Your task to perform on an android device: turn off improve location accuracy Image 0: 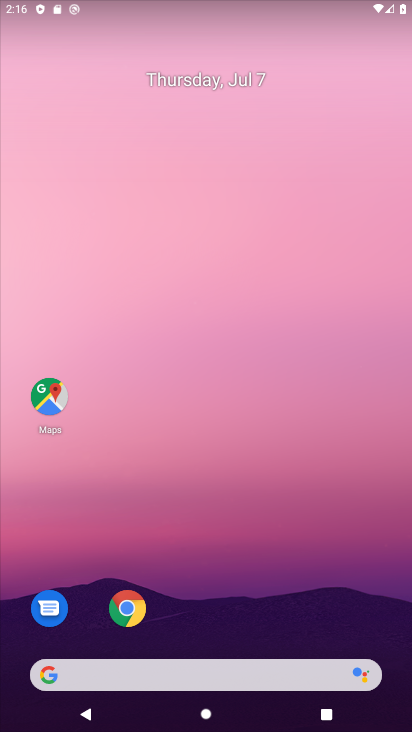
Step 0: drag from (389, 657) to (350, 147)
Your task to perform on an android device: turn off improve location accuracy Image 1: 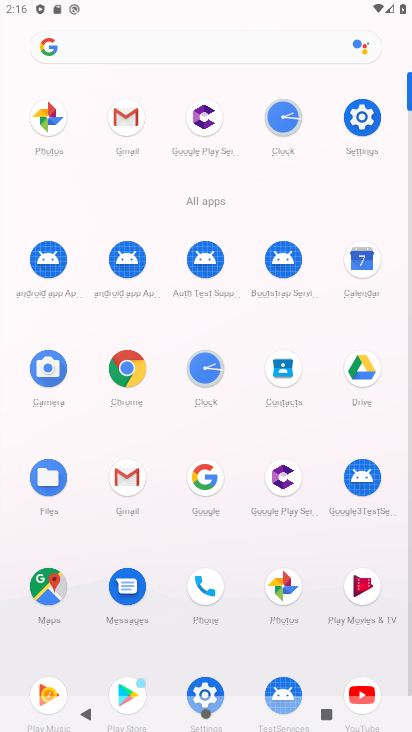
Step 1: click (410, 612)
Your task to perform on an android device: turn off improve location accuracy Image 2: 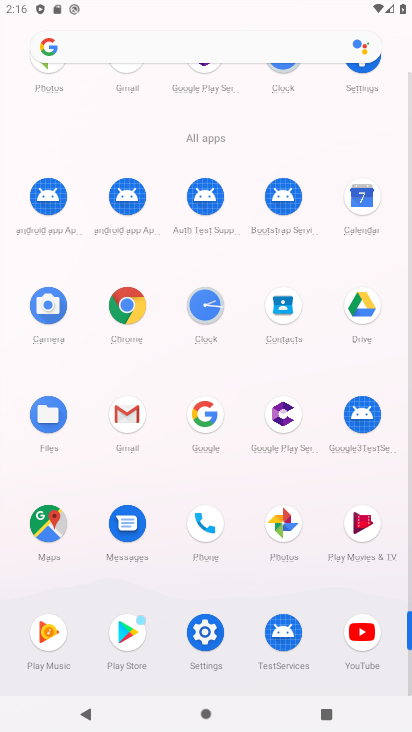
Step 2: click (204, 633)
Your task to perform on an android device: turn off improve location accuracy Image 3: 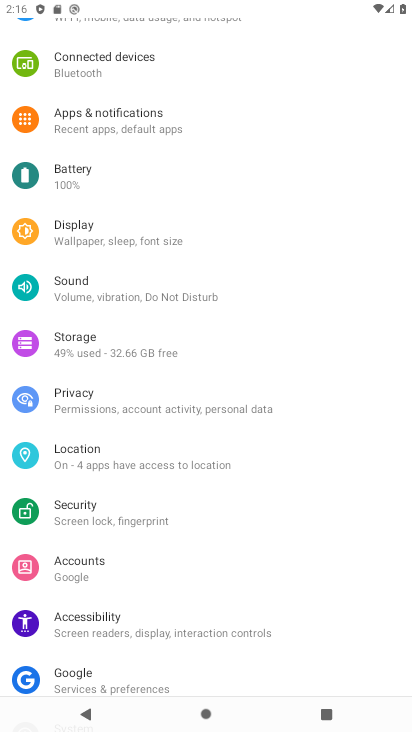
Step 3: click (82, 458)
Your task to perform on an android device: turn off improve location accuracy Image 4: 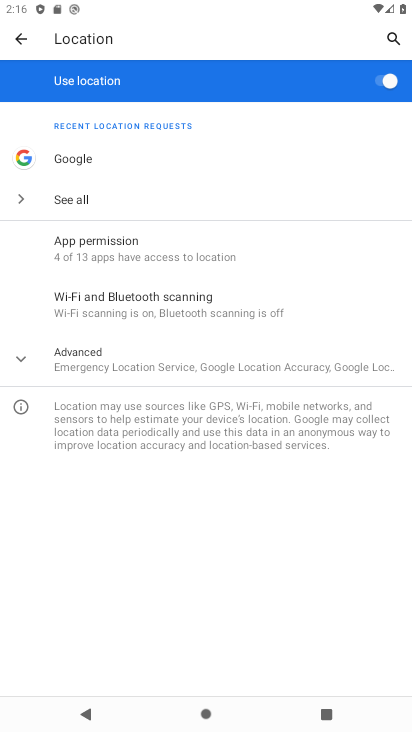
Step 4: click (18, 357)
Your task to perform on an android device: turn off improve location accuracy Image 5: 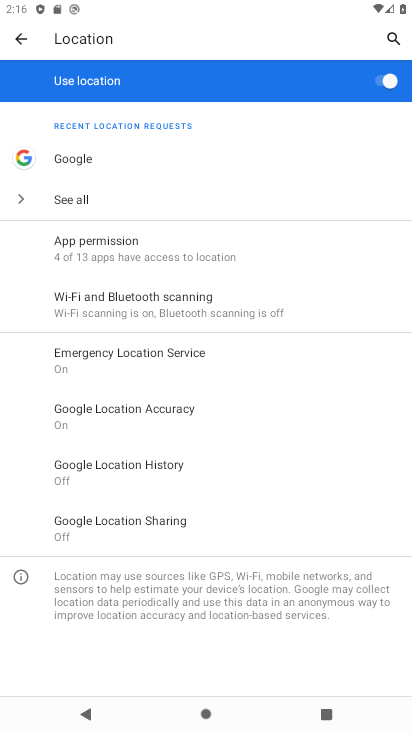
Step 5: click (124, 404)
Your task to perform on an android device: turn off improve location accuracy Image 6: 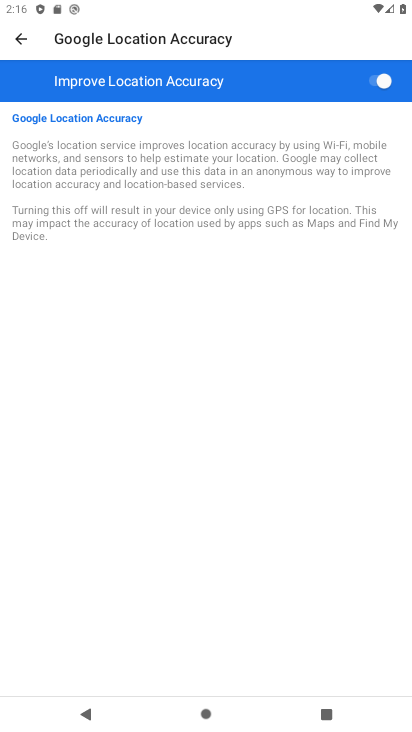
Step 6: click (371, 82)
Your task to perform on an android device: turn off improve location accuracy Image 7: 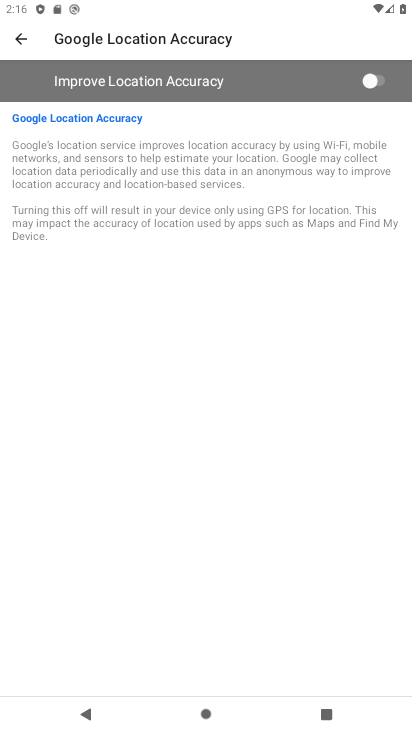
Step 7: task complete